Your task to perform on an android device: toggle notifications settings in the gmail app Image 0: 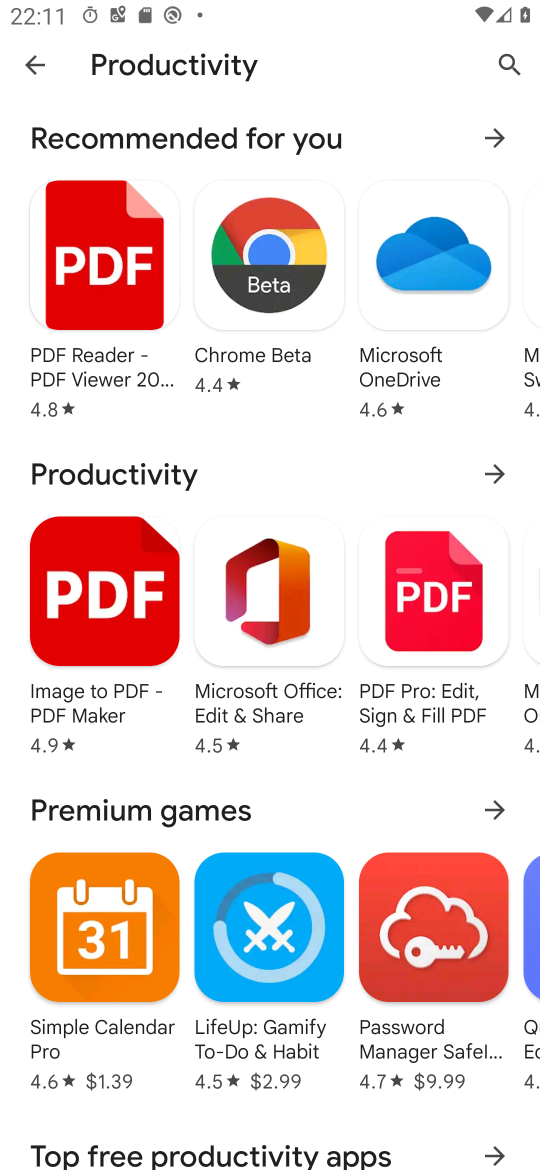
Step 0: press home button
Your task to perform on an android device: toggle notifications settings in the gmail app Image 1: 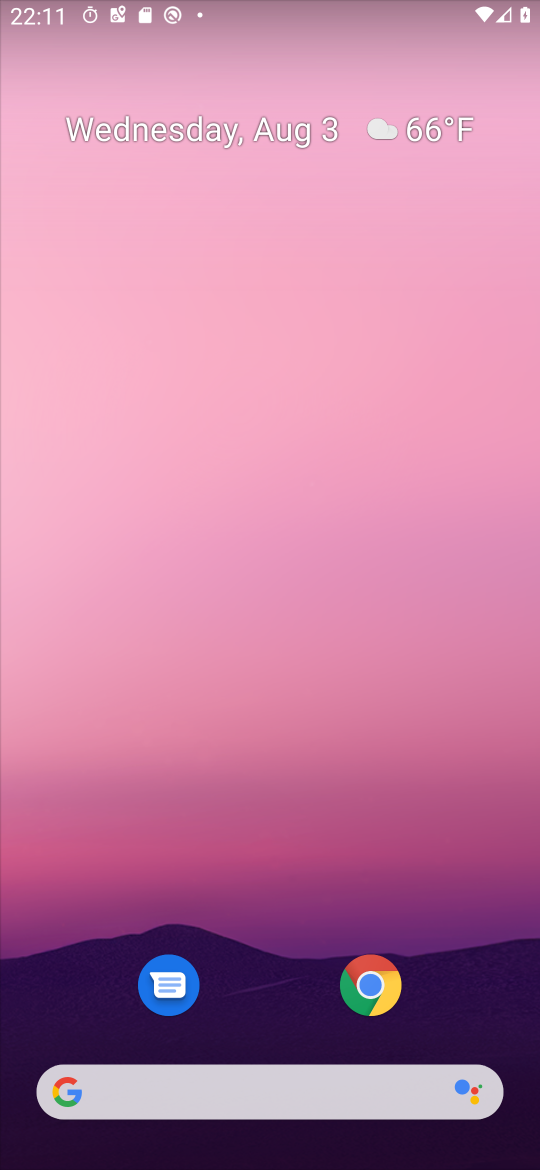
Step 1: drag from (234, 900) to (231, 234)
Your task to perform on an android device: toggle notifications settings in the gmail app Image 2: 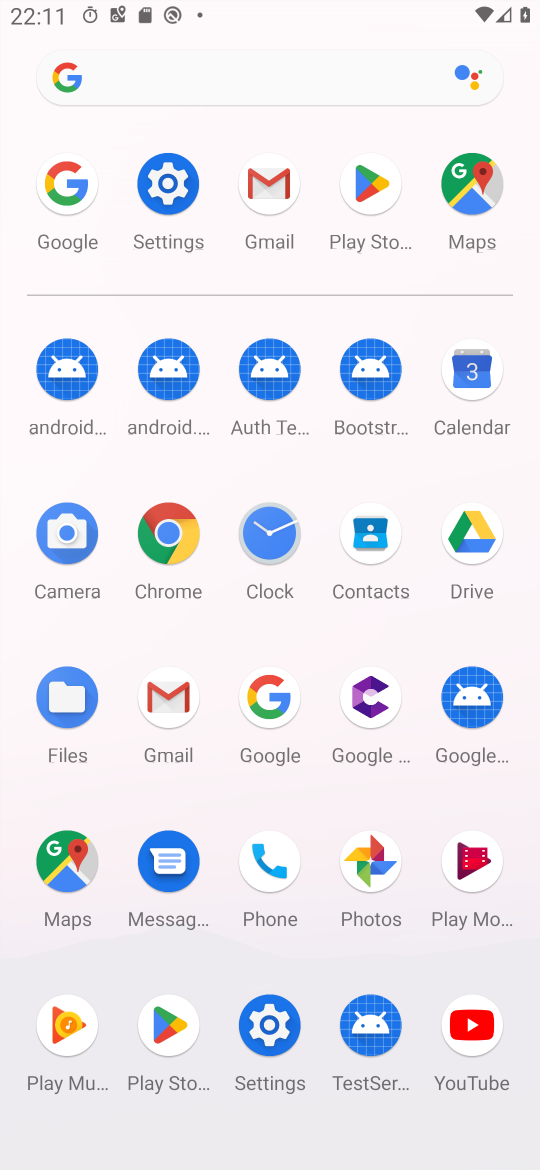
Step 2: click (236, 217)
Your task to perform on an android device: toggle notifications settings in the gmail app Image 3: 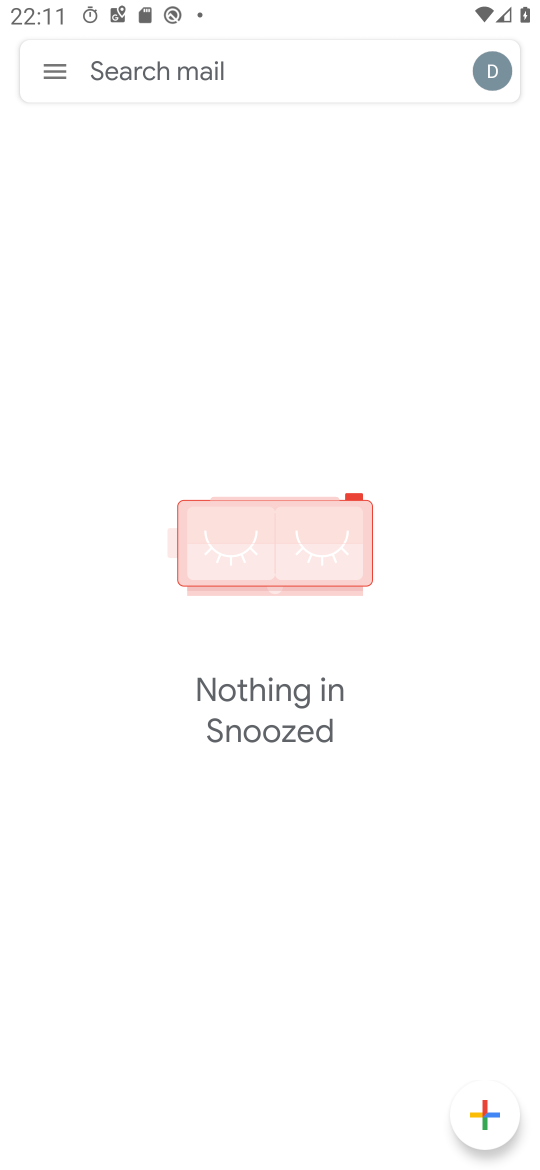
Step 3: click (58, 62)
Your task to perform on an android device: toggle notifications settings in the gmail app Image 4: 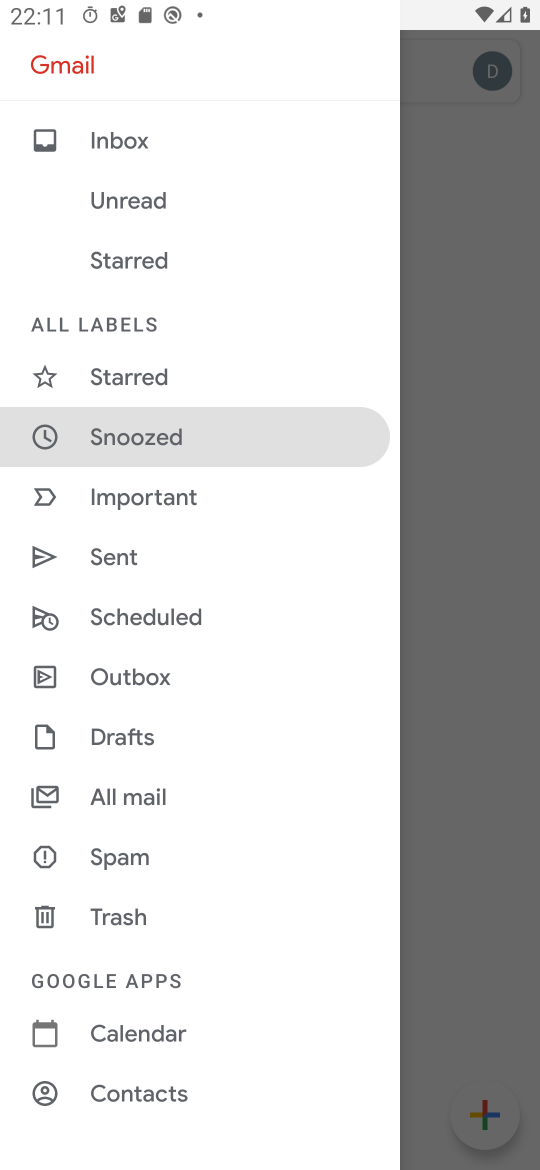
Step 4: drag from (195, 1068) to (213, 456)
Your task to perform on an android device: toggle notifications settings in the gmail app Image 5: 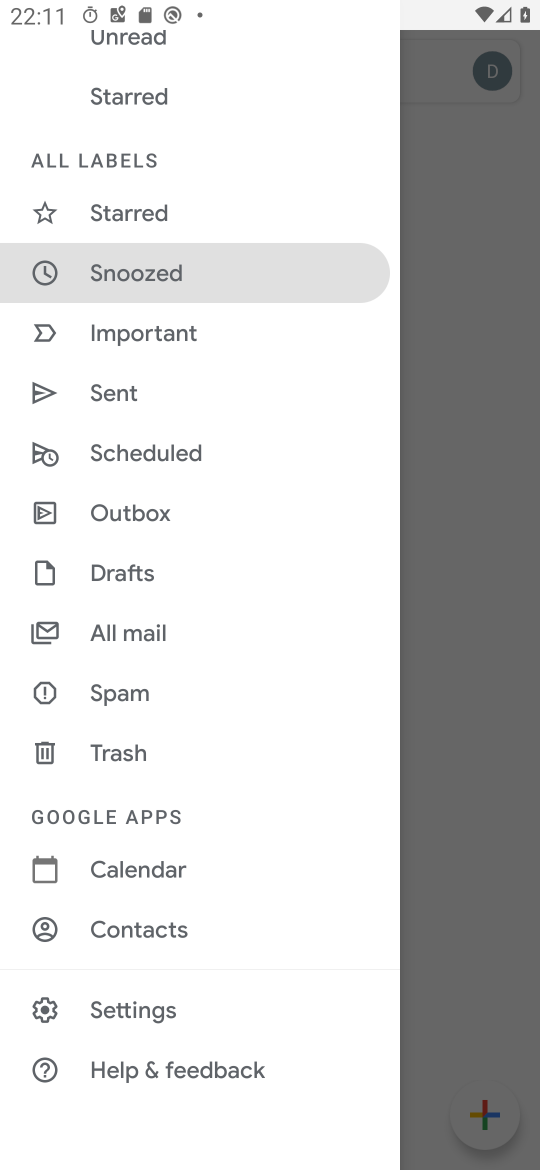
Step 5: click (172, 1010)
Your task to perform on an android device: toggle notifications settings in the gmail app Image 6: 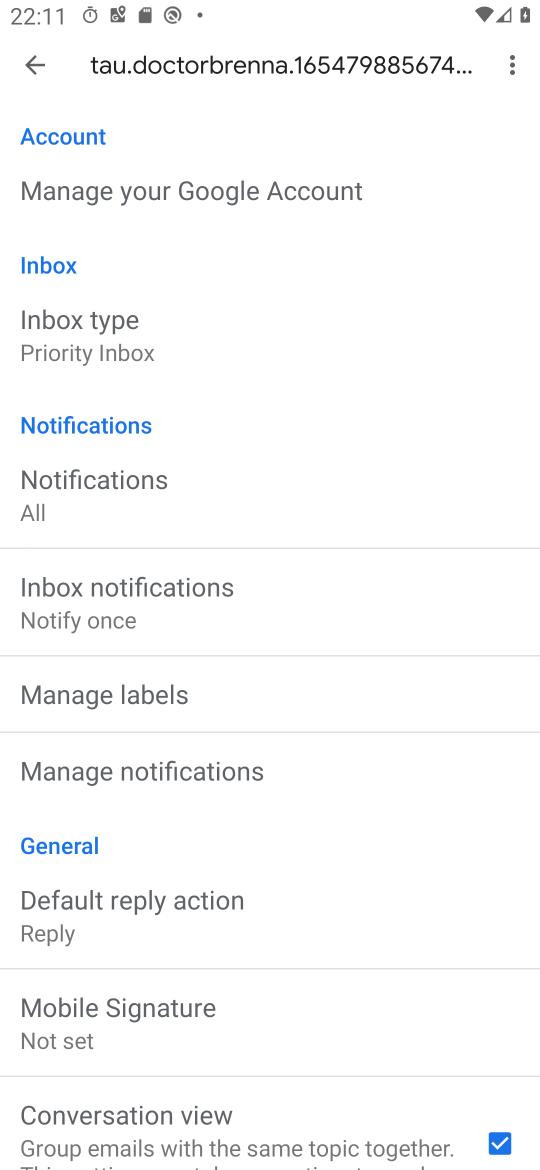
Step 6: click (196, 788)
Your task to perform on an android device: toggle notifications settings in the gmail app Image 7: 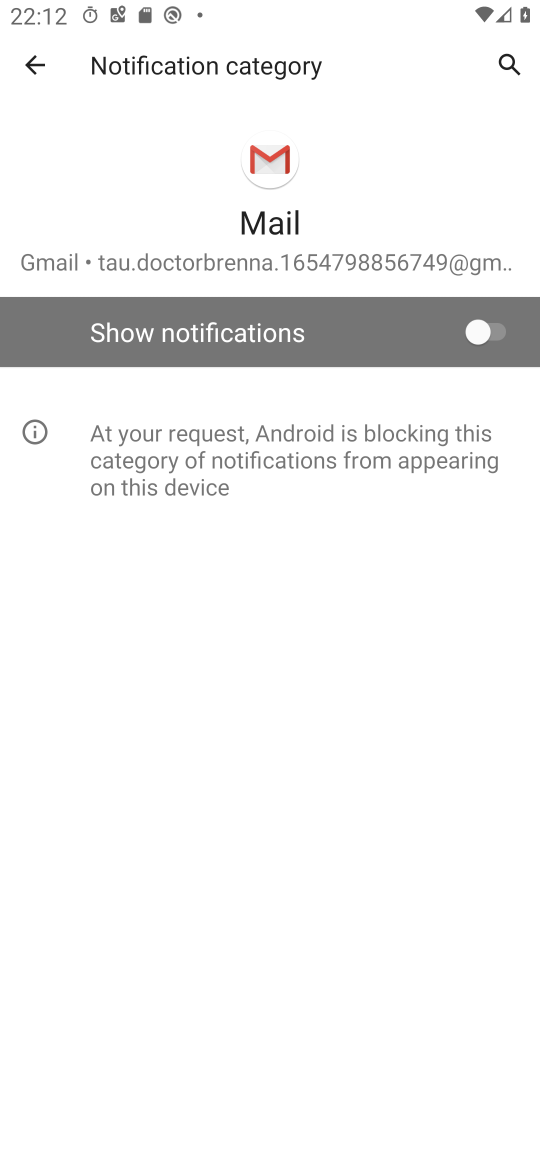
Step 7: click (496, 342)
Your task to perform on an android device: toggle notifications settings in the gmail app Image 8: 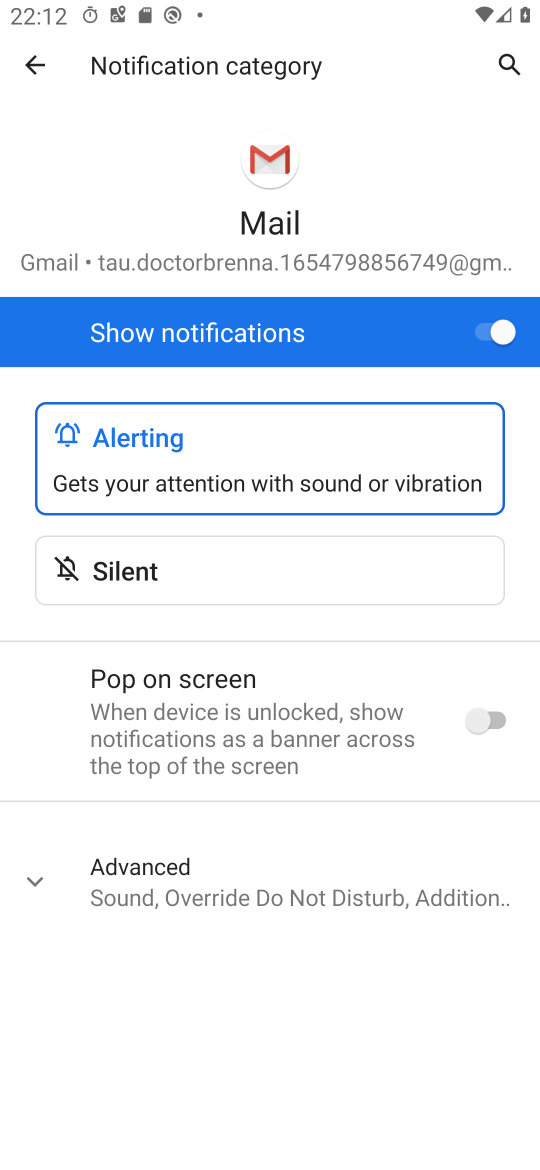
Step 8: task complete